Your task to perform on an android device: Open network settings Image 0: 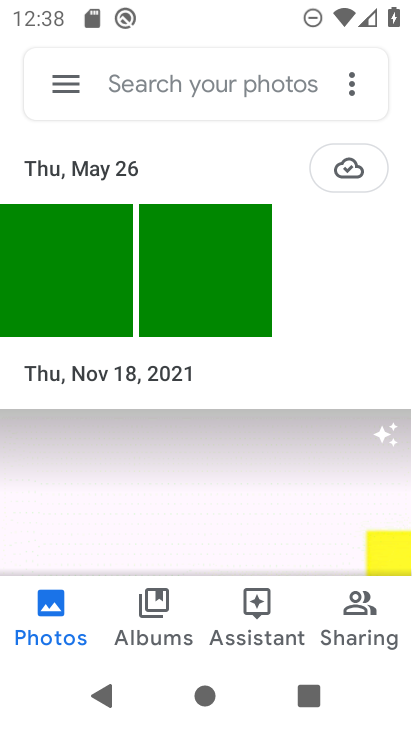
Step 0: press back button
Your task to perform on an android device: Open network settings Image 1: 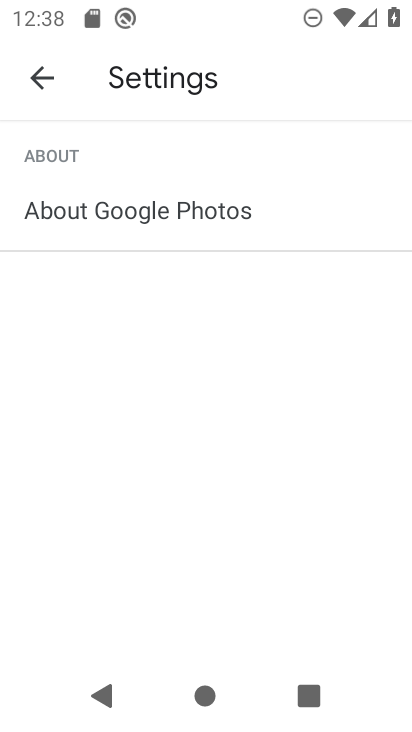
Step 1: press home button
Your task to perform on an android device: Open network settings Image 2: 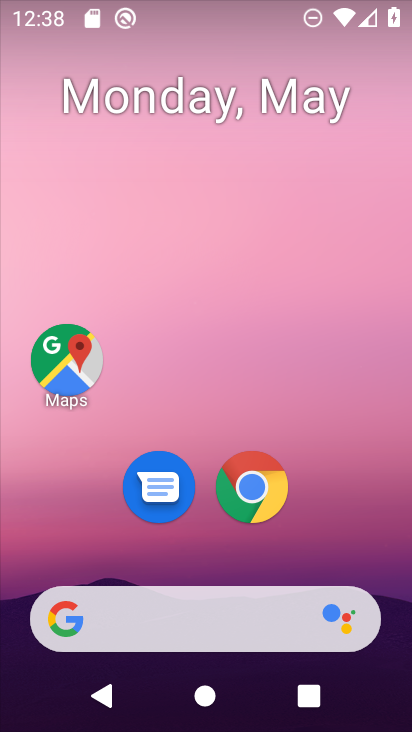
Step 2: drag from (308, 546) to (292, 104)
Your task to perform on an android device: Open network settings Image 3: 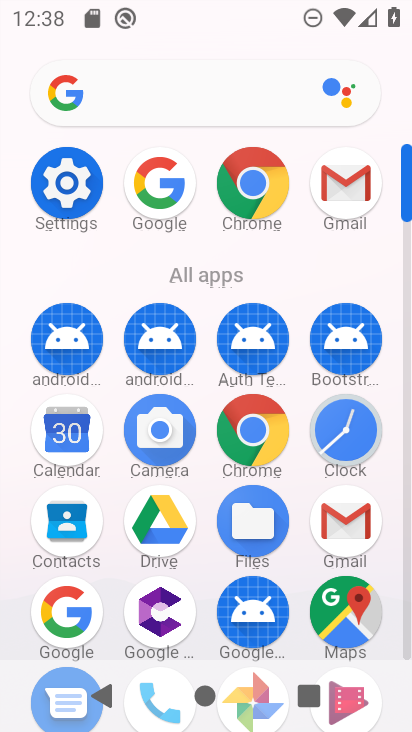
Step 3: click (69, 181)
Your task to perform on an android device: Open network settings Image 4: 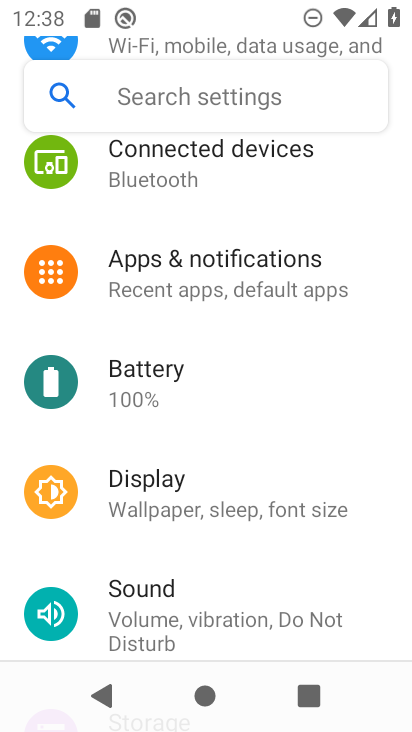
Step 4: drag from (179, 228) to (204, 422)
Your task to perform on an android device: Open network settings Image 5: 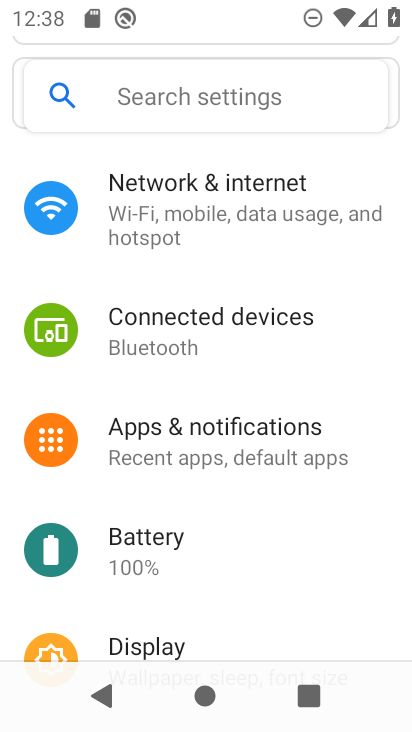
Step 5: click (236, 216)
Your task to perform on an android device: Open network settings Image 6: 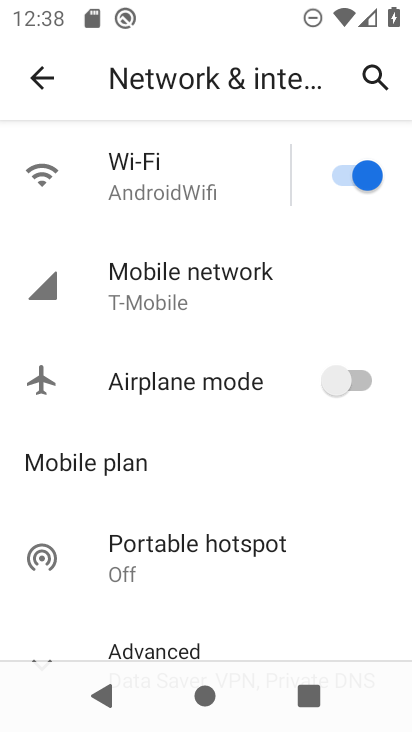
Step 6: click (143, 206)
Your task to perform on an android device: Open network settings Image 7: 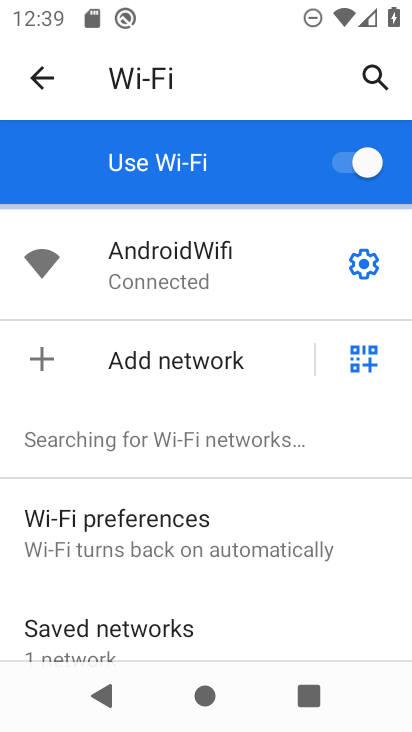
Step 7: task complete